Your task to perform on an android device: Open Google Chrome and open the bookmarks view Image 0: 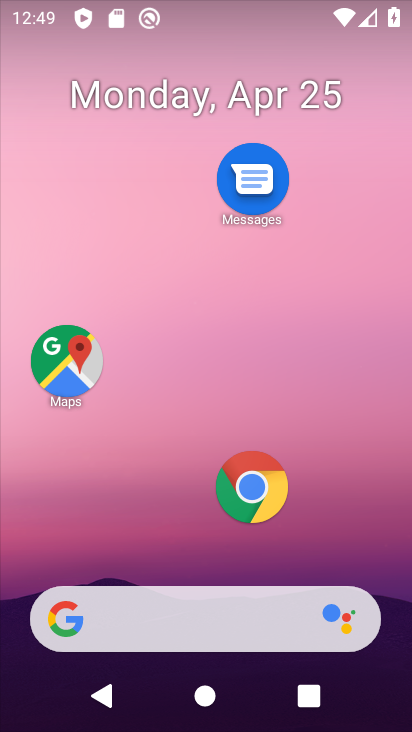
Step 0: click (240, 508)
Your task to perform on an android device: Open Google Chrome and open the bookmarks view Image 1: 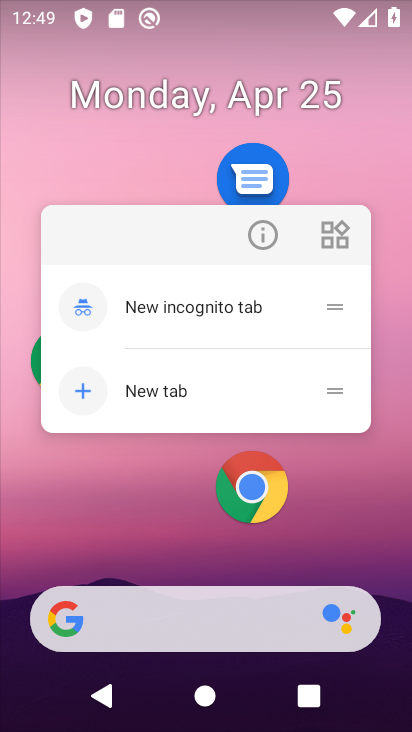
Step 1: click (293, 507)
Your task to perform on an android device: Open Google Chrome and open the bookmarks view Image 2: 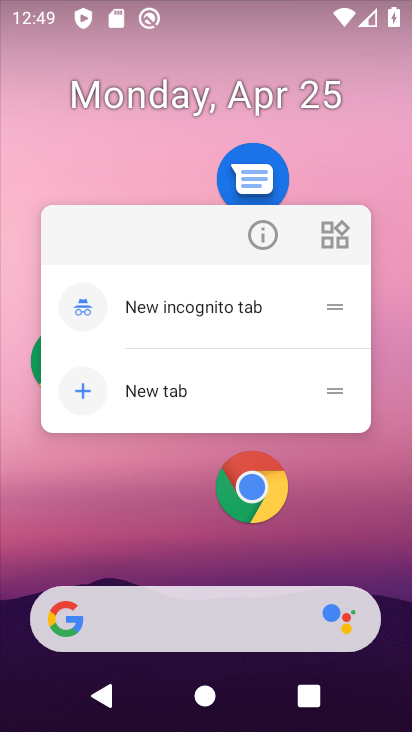
Step 2: click (260, 495)
Your task to perform on an android device: Open Google Chrome and open the bookmarks view Image 3: 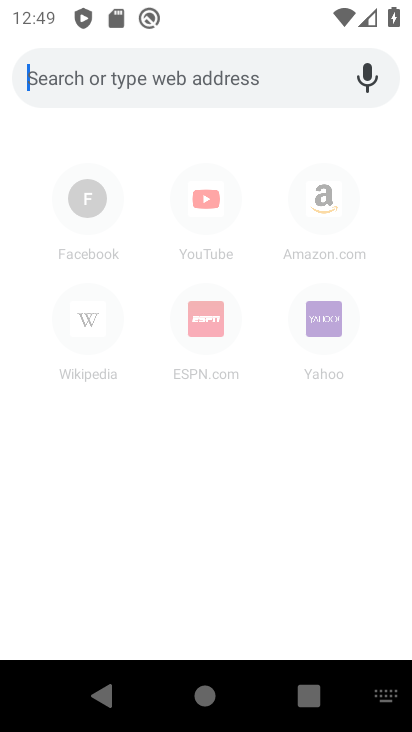
Step 3: click (236, 561)
Your task to perform on an android device: Open Google Chrome and open the bookmarks view Image 4: 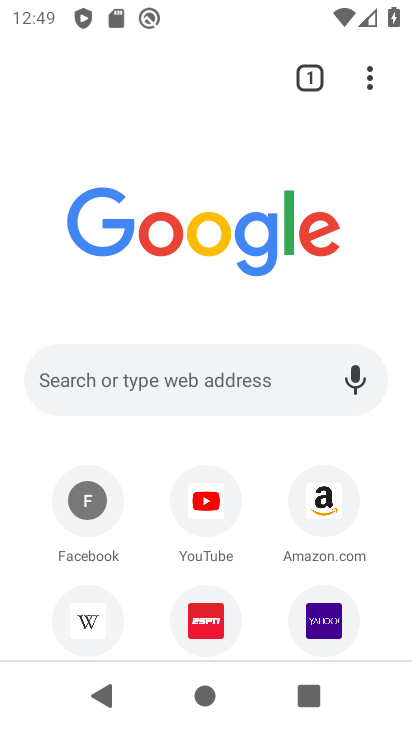
Step 4: task complete